Your task to perform on an android device: set an alarm Image 0: 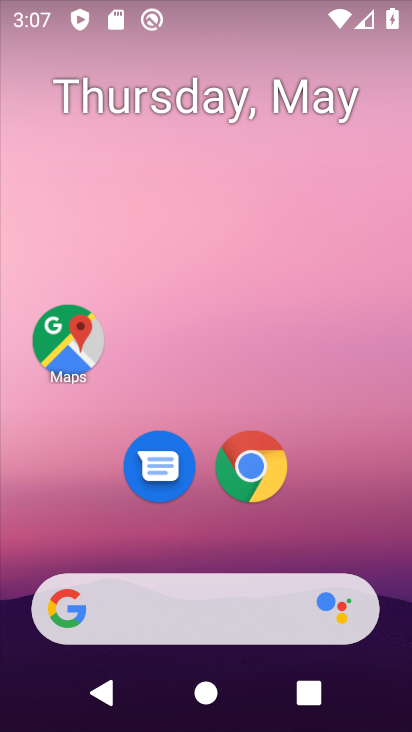
Step 0: drag from (363, 491) to (230, 218)
Your task to perform on an android device: set an alarm Image 1: 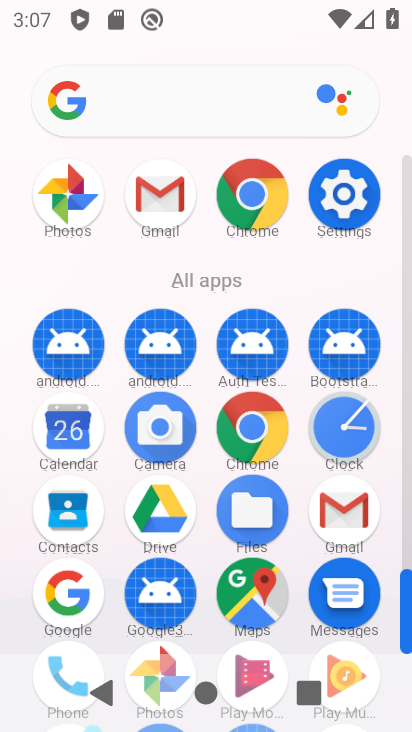
Step 1: click (361, 433)
Your task to perform on an android device: set an alarm Image 2: 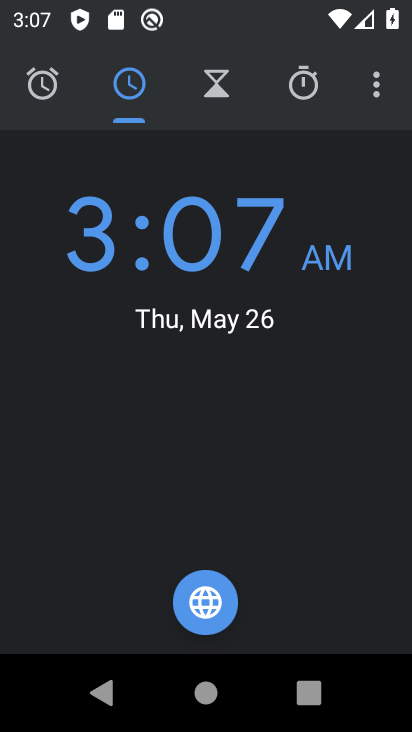
Step 2: click (45, 103)
Your task to perform on an android device: set an alarm Image 3: 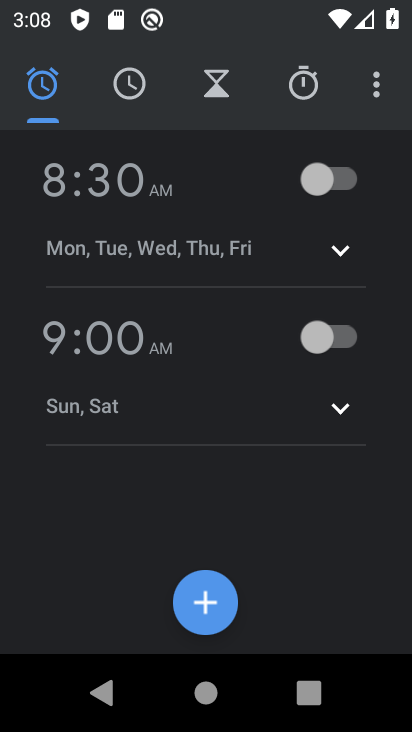
Step 3: task complete